Your task to perform on an android device: Go to Yahoo.com Image 0: 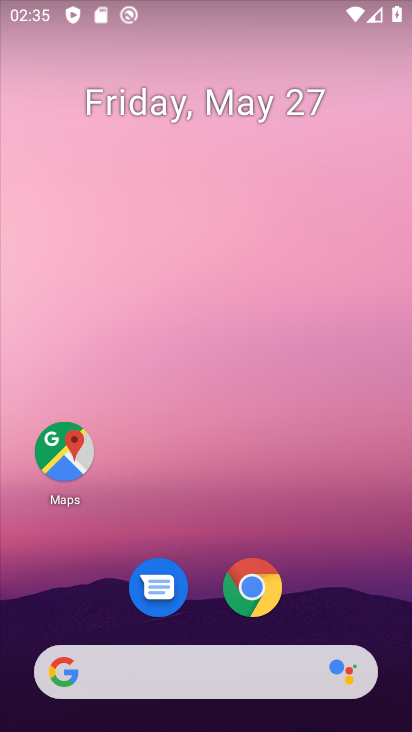
Step 0: press home button
Your task to perform on an android device: Go to Yahoo.com Image 1: 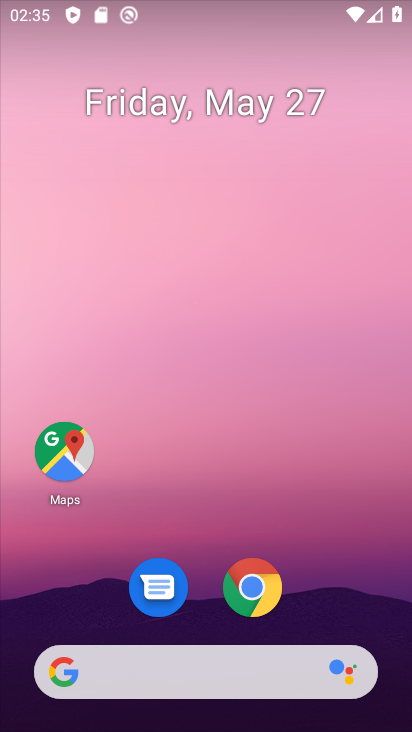
Step 1: click (53, 680)
Your task to perform on an android device: Go to Yahoo.com Image 2: 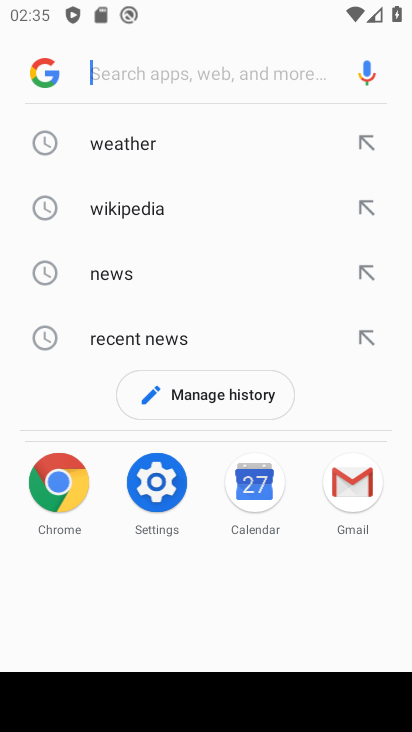
Step 2: type "Yahoo.com"
Your task to perform on an android device: Go to Yahoo.com Image 3: 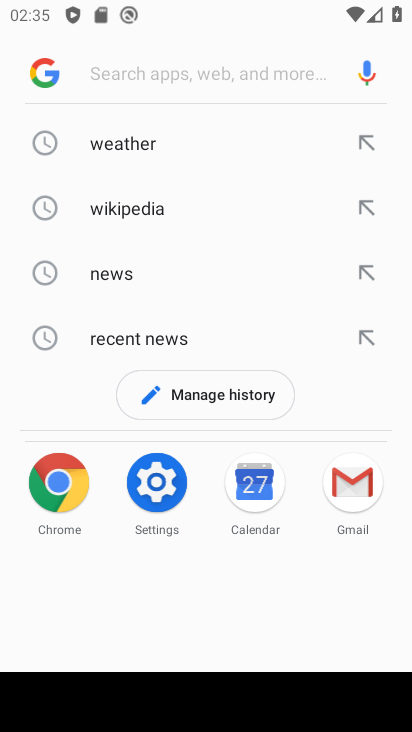
Step 3: click (195, 72)
Your task to perform on an android device: Go to Yahoo.com Image 4: 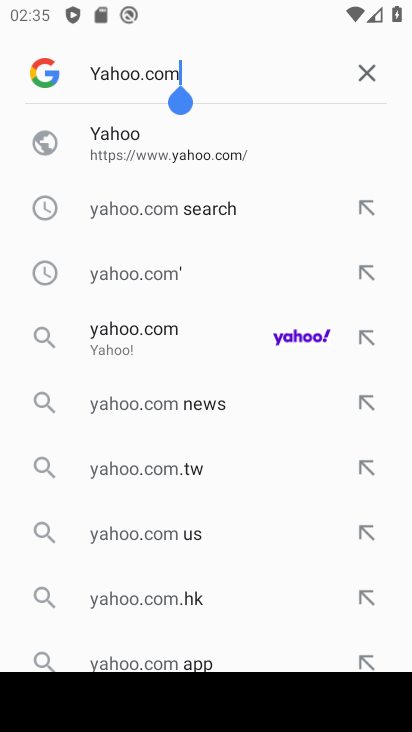
Step 4: click (113, 138)
Your task to perform on an android device: Go to Yahoo.com Image 5: 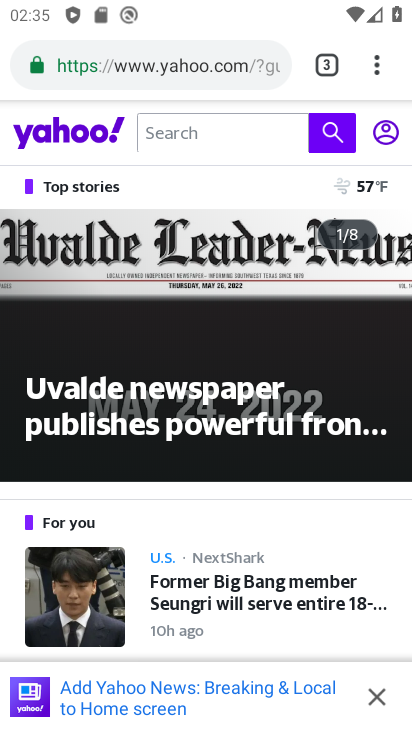
Step 5: task complete